Your task to perform on an android device: Go to Google maps Image 0: 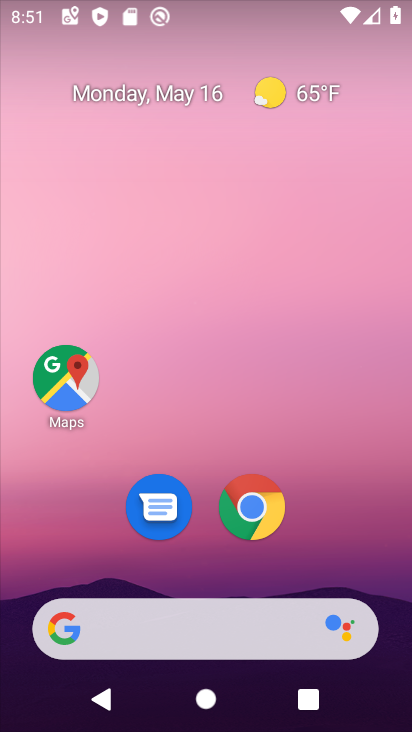
Step 0: click (66, 402)
Your task to perform on an android device: Go to Google maps Image 1: 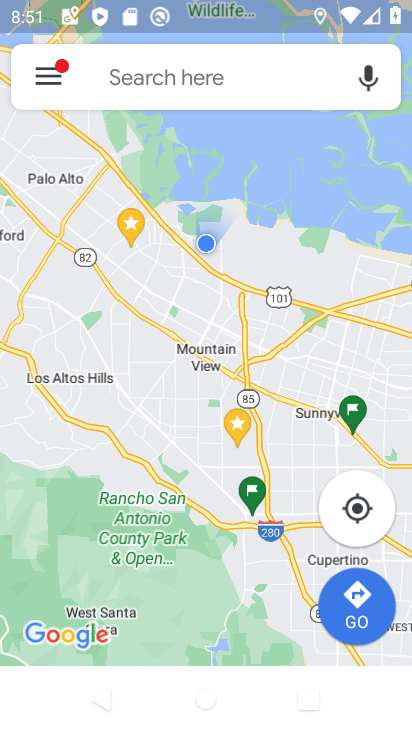
Step 1: task complete